Your task to perform on an android device: change your default location settings in chrome Image 0: 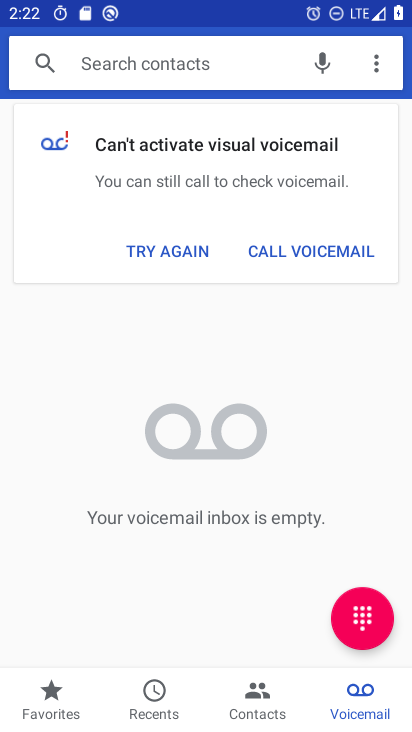
Step 0: press home button
Your task to perform on an android device: change your default location settings in chrome Image 1: 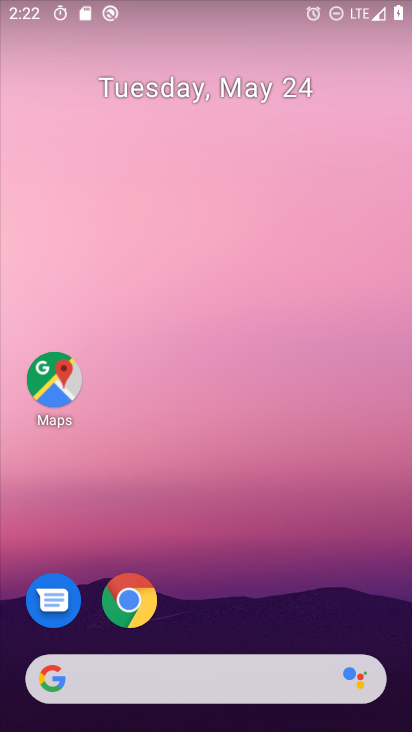
Step 1: click (130, 602)
Your task to perform on an android device: change your default location settings in chrome Image 2: 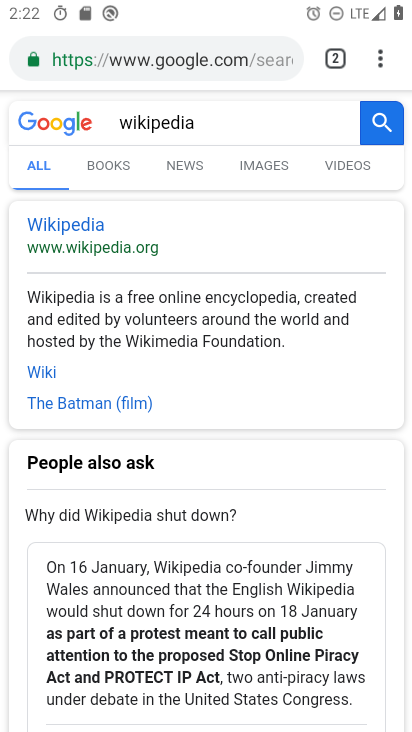
Step 2: click (375, 51)
Your task to perform on an android device: change your default location settings in chrome Image 3: 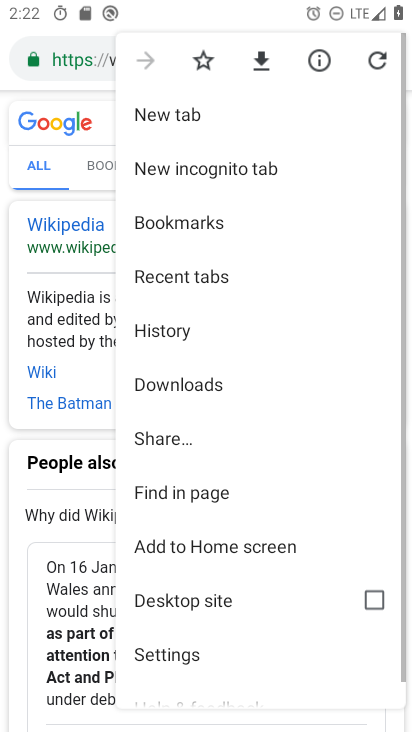
Step 3: drag from (217, 608) to (293, 128)
Your task to perform on an android device: change your default location settings in chrome Image 4: 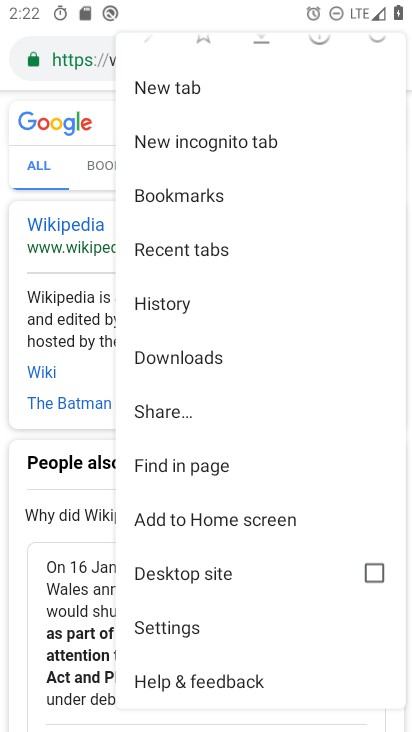
Step 4: click (191, 637)
Your task to perform on an android device: change your default location settings in chrome Image 5: 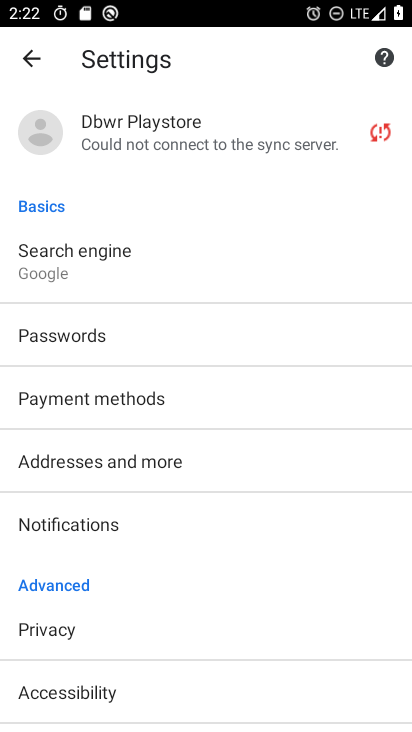
Step 5: click (124, 279)
Your task to perform on an android device: change your default location settings in chrome Image 6: 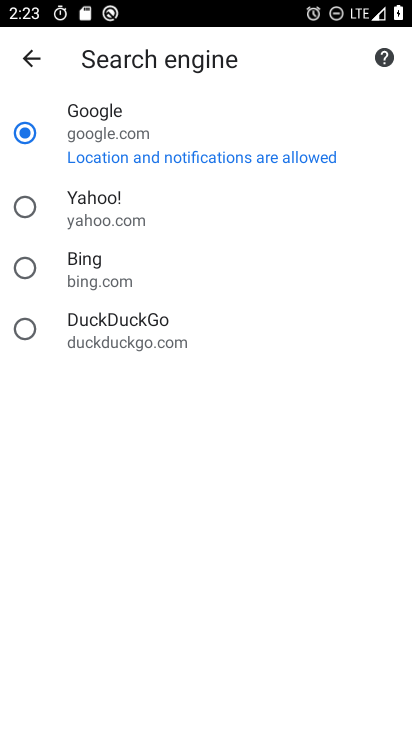
Step 6: click (45, 57)
Your task to perform on an android device: change your default location settings in chrome Image 7: 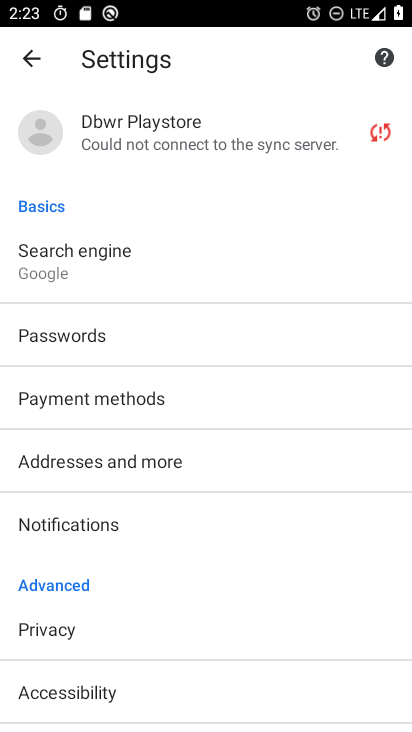
Step 7: click (122, 250)
Your task to perform on an android device: change your default location settings in chrome Image 8: 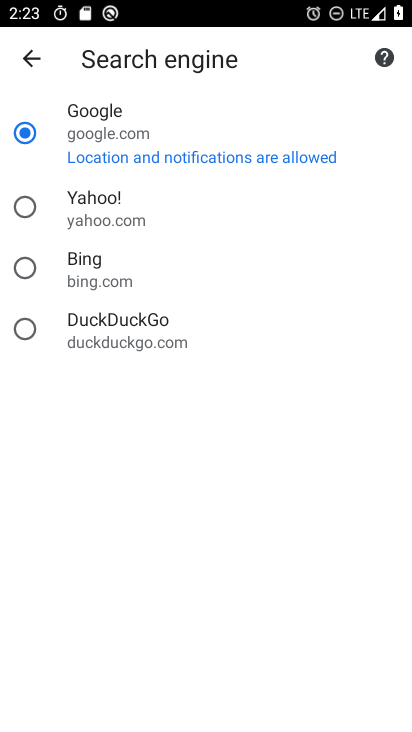
Step 8: click (18, 61)
Your task to perform on an android device: change your default location settings in chrome Image 9: 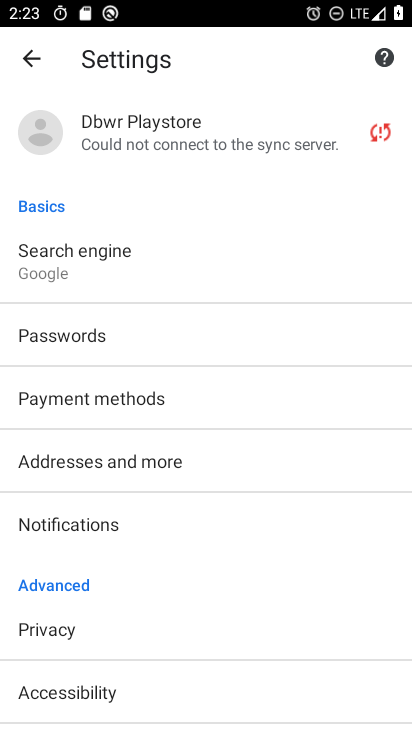
Step 9: drag from (199, 550) to (243, 255)
Your task to perform on an android device: change your default location settings in chrome Image 10: 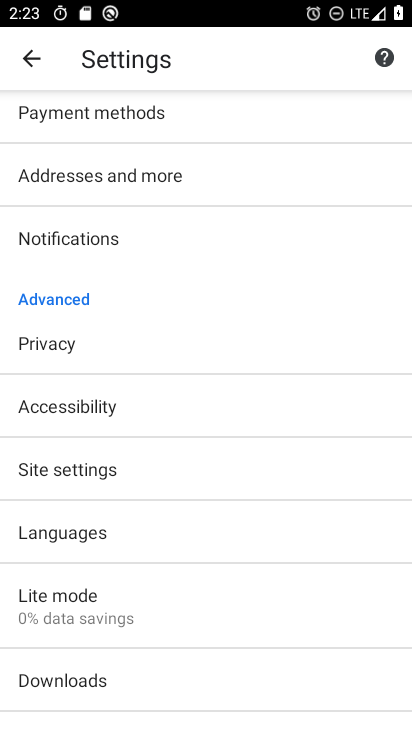
Step 10: drag from (151, 146) to (193, 577)
Your task to perform on an android device: change your default location settings in chrome Image 11: 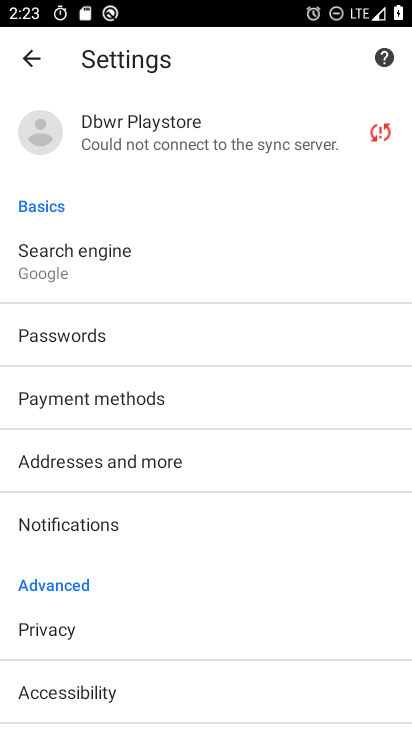
Step 11: drag from (175, 623) to (222, 355)
Your task to perform on an android device: change your default location settings in chrome Image 12: 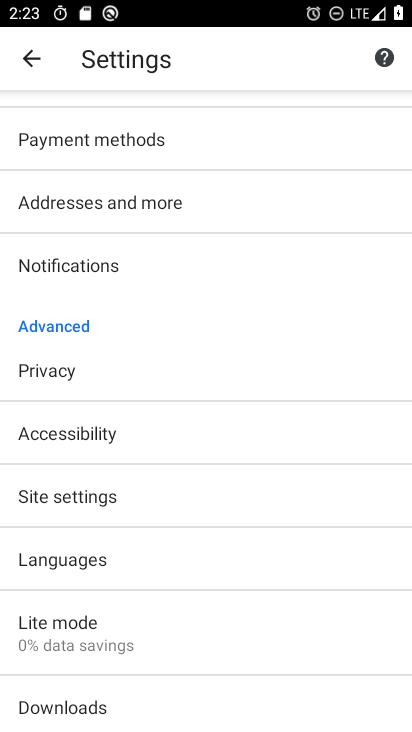
Step 12: drag from (222, 338) to (192, 676)
Your task to perform on an android device: change your default location settings in chrome Image 13: 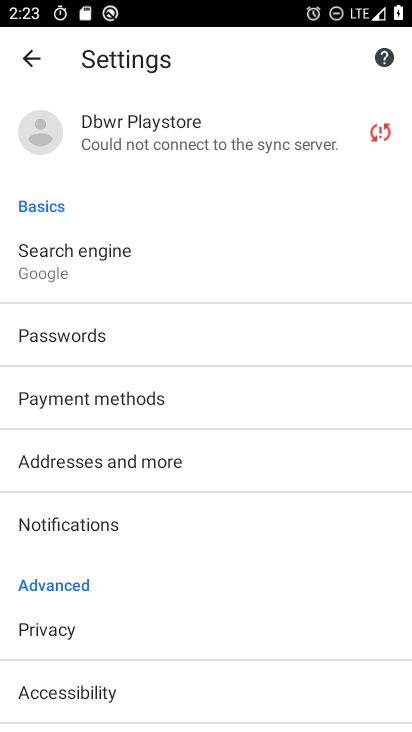
Step 13: drag from (144, 616) to (222, 269)
Your task to perform on an android device: change your default location settings in chrome Image 14: 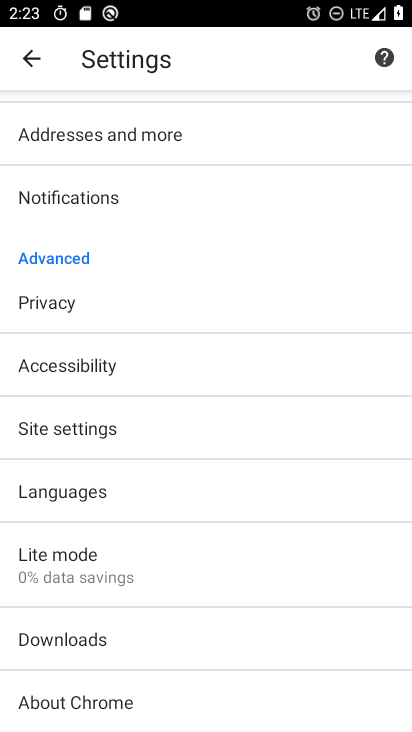
Step 14: click (105, 441)
Your task to perform on an android device: change your default location settings in chrome Image 15: 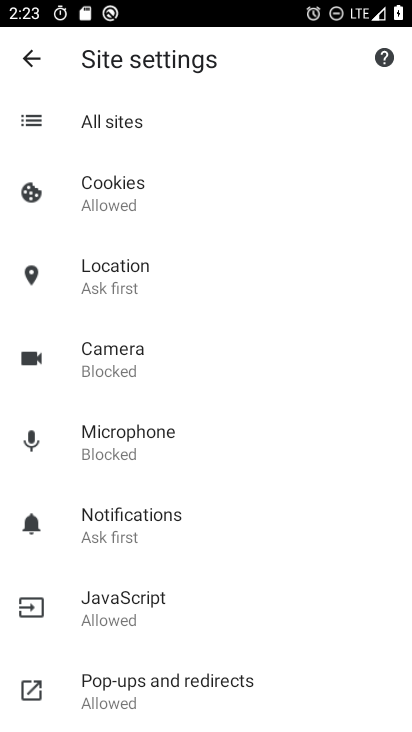
Step 15: drag from (208, 573) to (234, 731)
Your task to perform on an android device: change your default location settings in chrome Image 16: 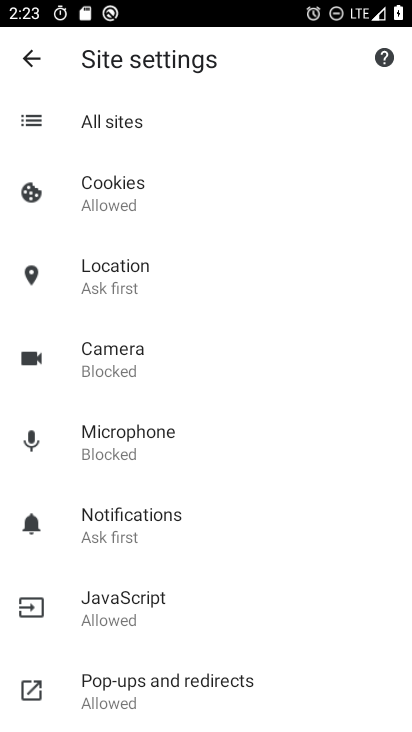
Step 16: click (116, 276)
Your task to perform on an android device: change your default location settings in chrome Image 17: 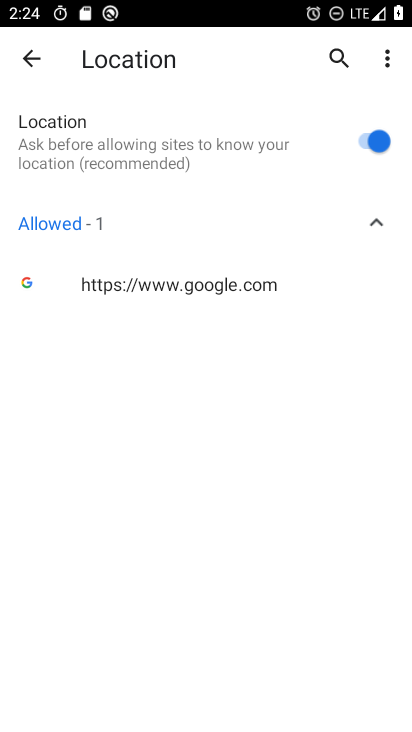
Step 17: click (352, 142)
Your task to perform on an android device: change your default location settings in chrome Image 18: 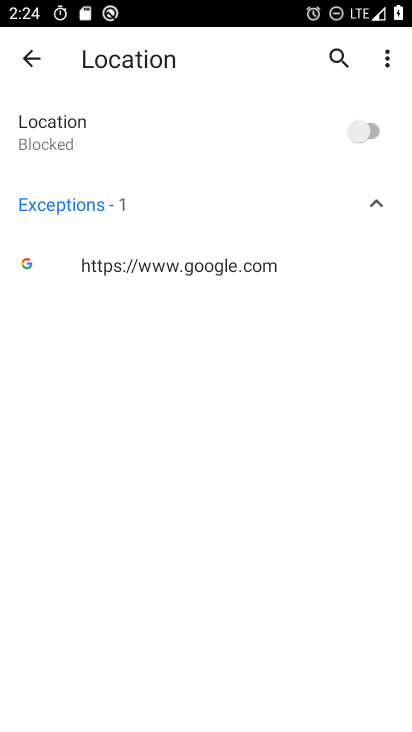
Step 18: task complete